Your task to perform on an android device: open app "PUBG MOBILE" (install if not already installed) Image 0: 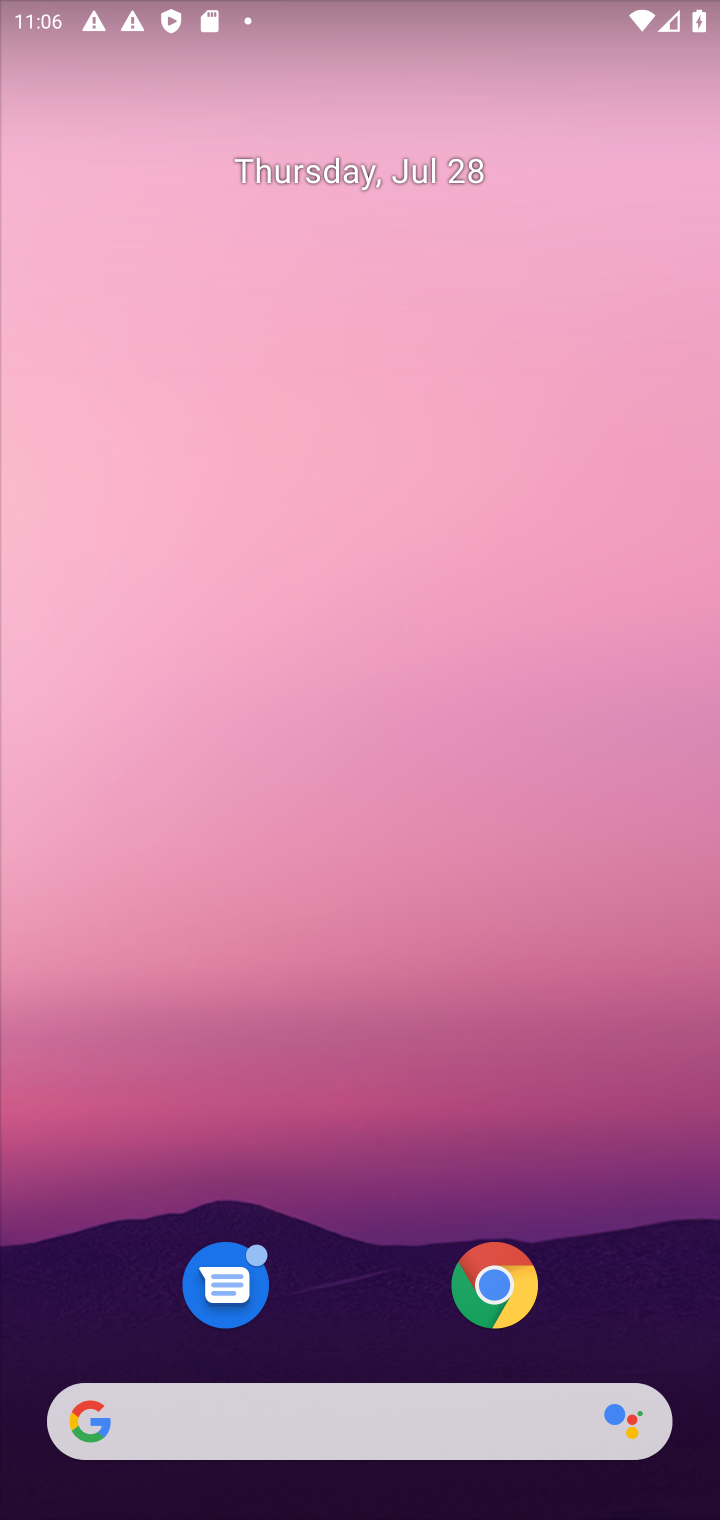
Step 0: click (479, 200)
Your task to perform on an android device: open app "PUBG MOBILE" (install if not already installed) Image 1: 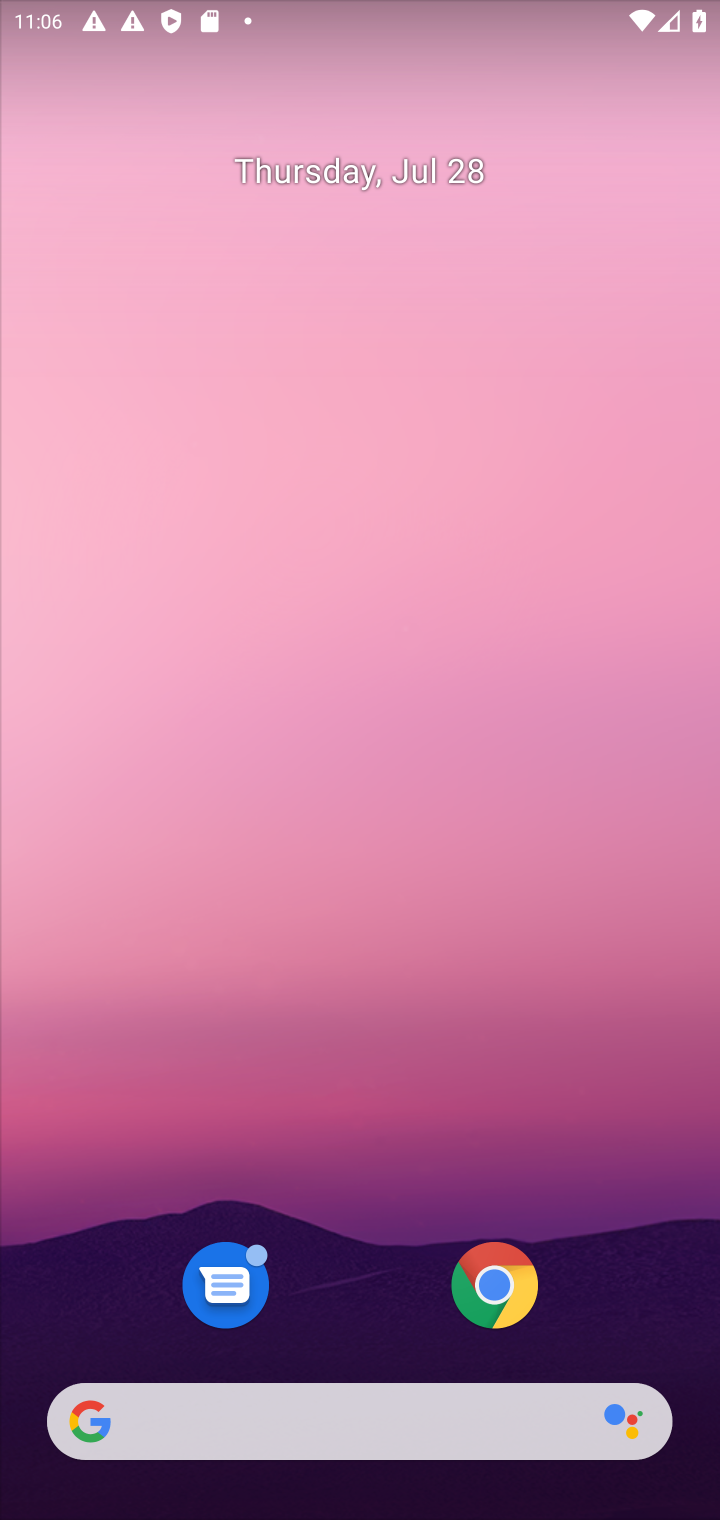
Step 1: drag from (332, 1335) to (362, 58)
Your task to perform on an android device: open app "PUBG MOBILE" (install if not already installed) Image 2: 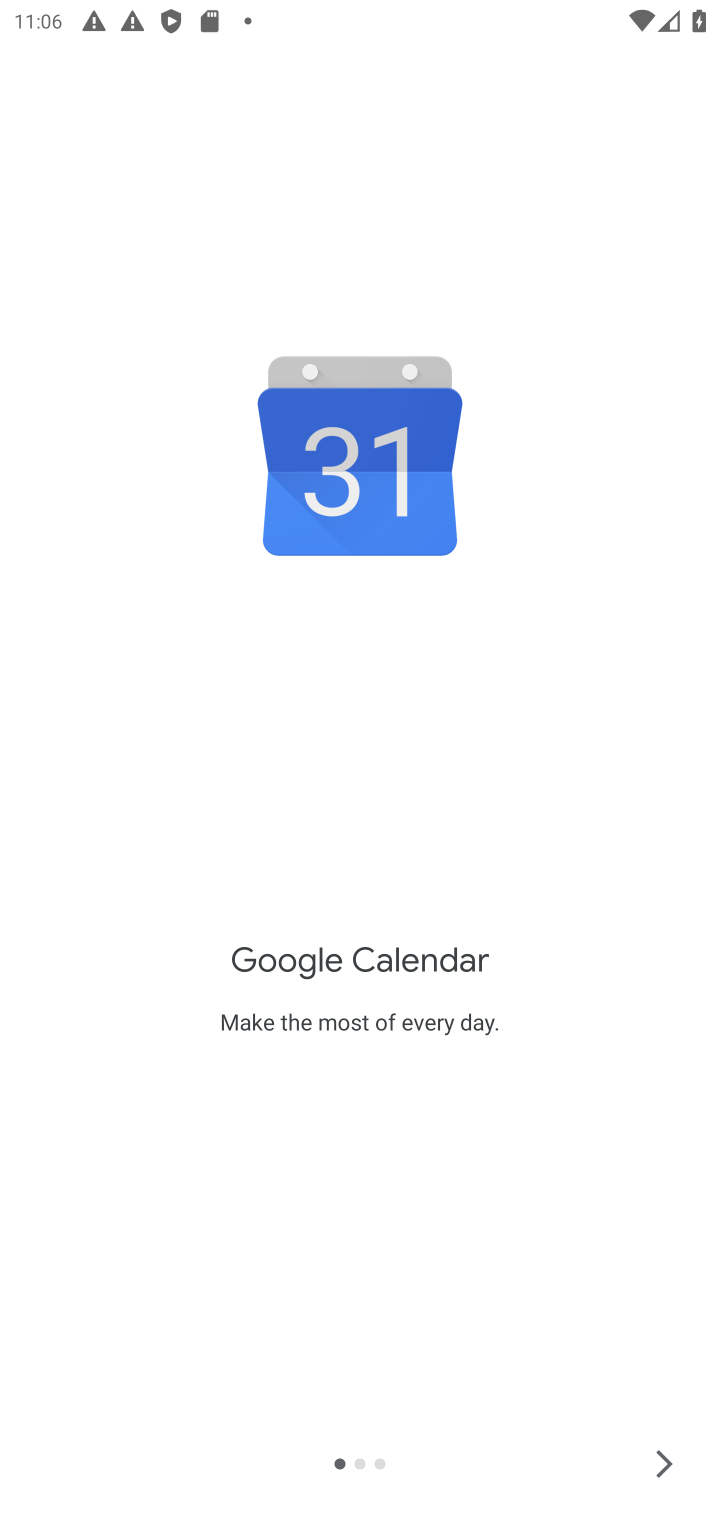
Step 2: press home button
Your task to perform on an android device: open app "PUBG MOBILE" (install if not already installed) Image 3: 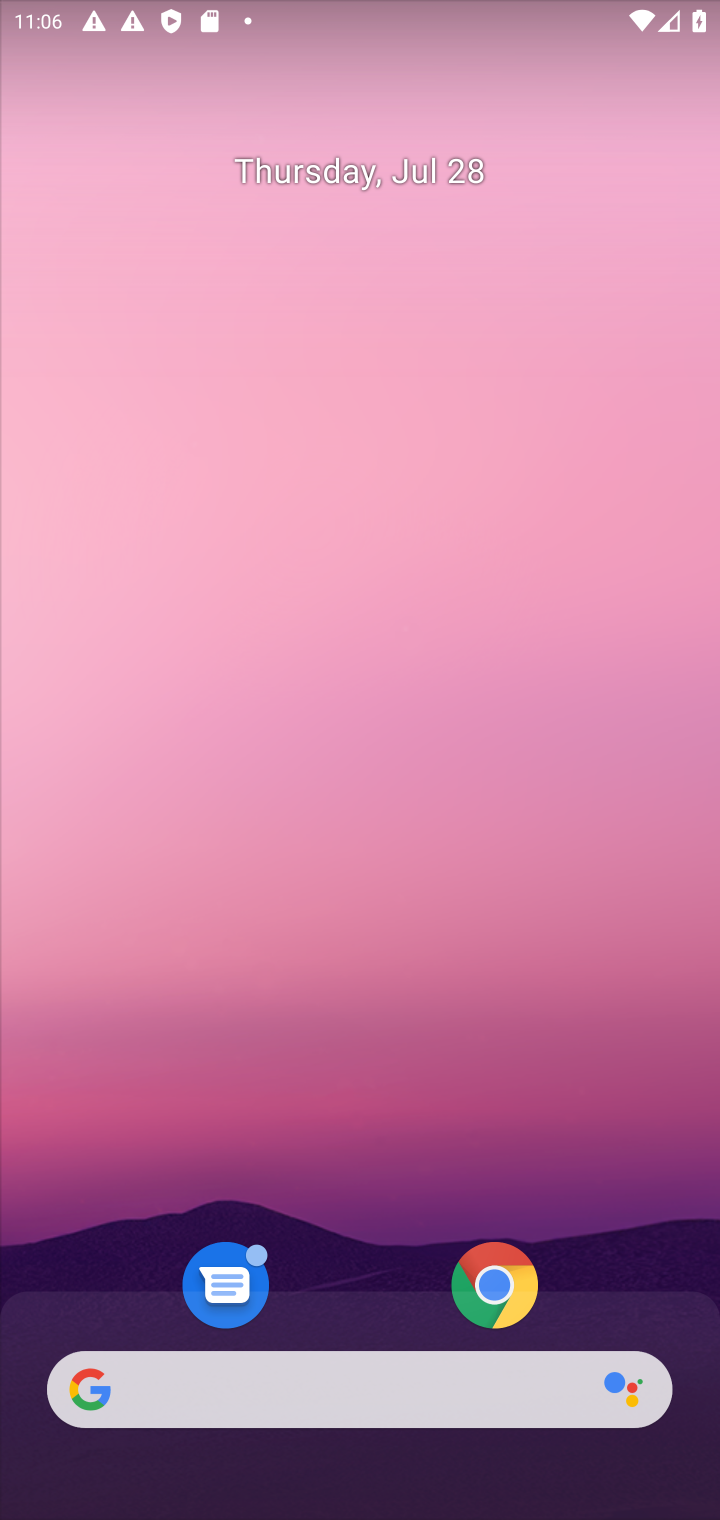
Step 3: drag from (254, 971) to (284, 64)
Your task to perform on an android device: open app "PUBG MOBILE" (install if not already installed) Image 4: 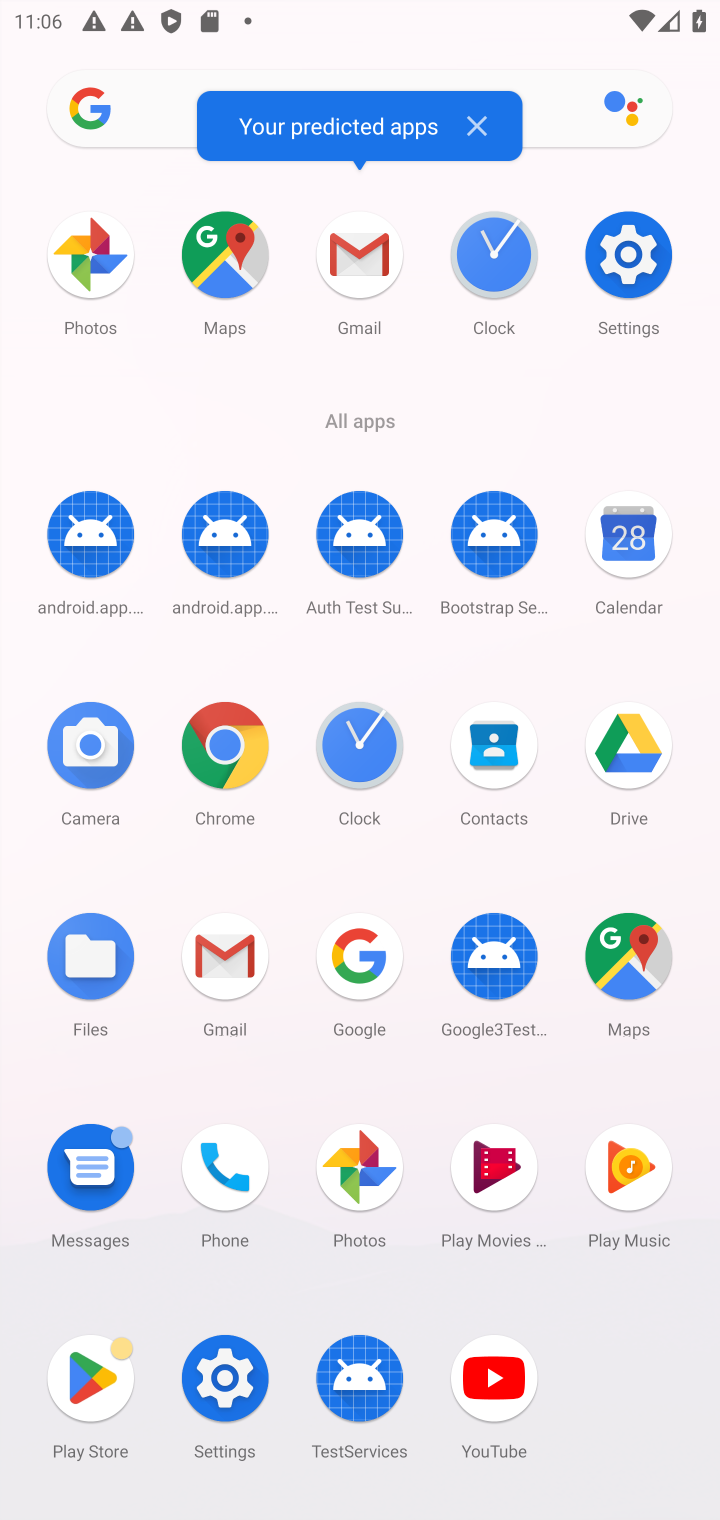
Step 4: click (83, 1373)
Your task to perform on an android device: open app "PUBG MOBILE" (install if not already installed) Image 5: 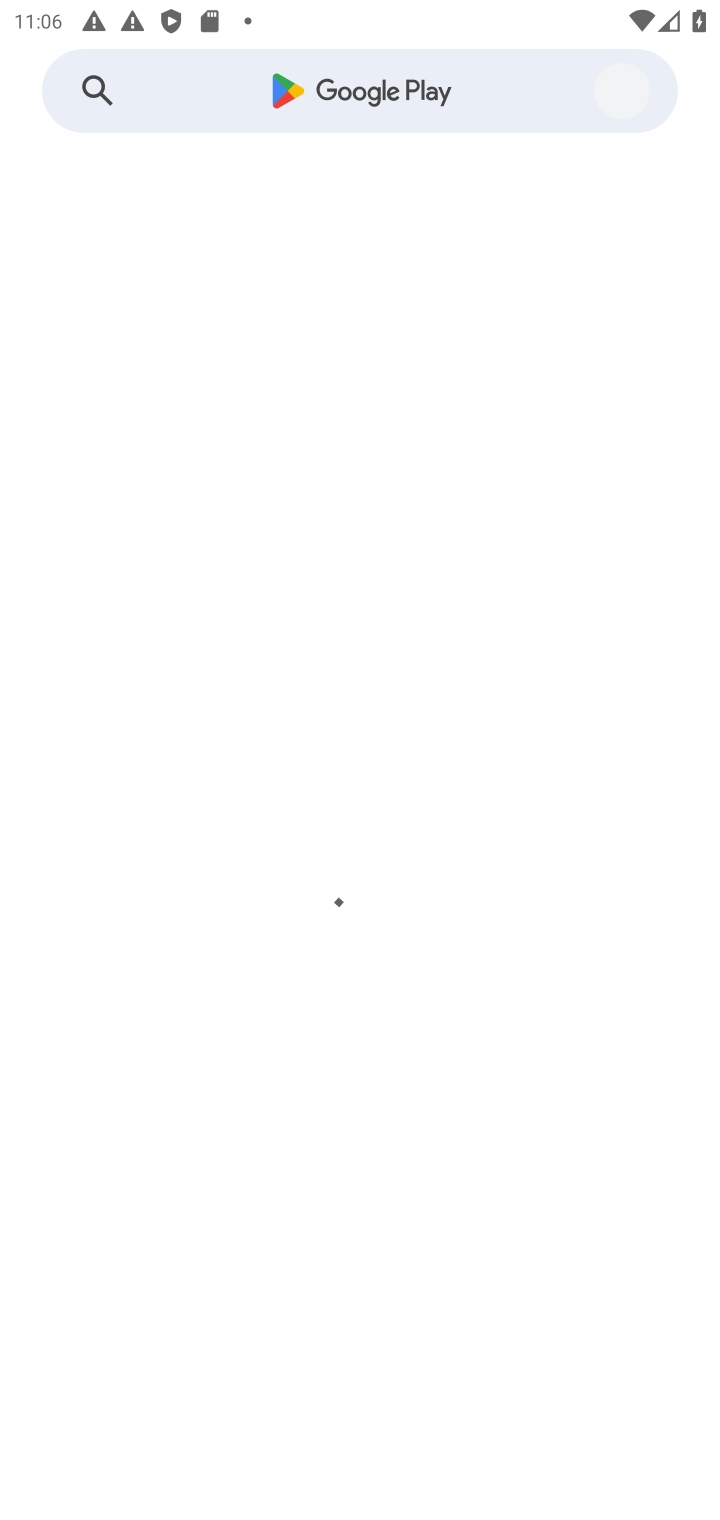
Step 5: click (376, 92)
Your task to perform on an android device: open app "PUBG MOBILE" (install if not already installed) Image 6: 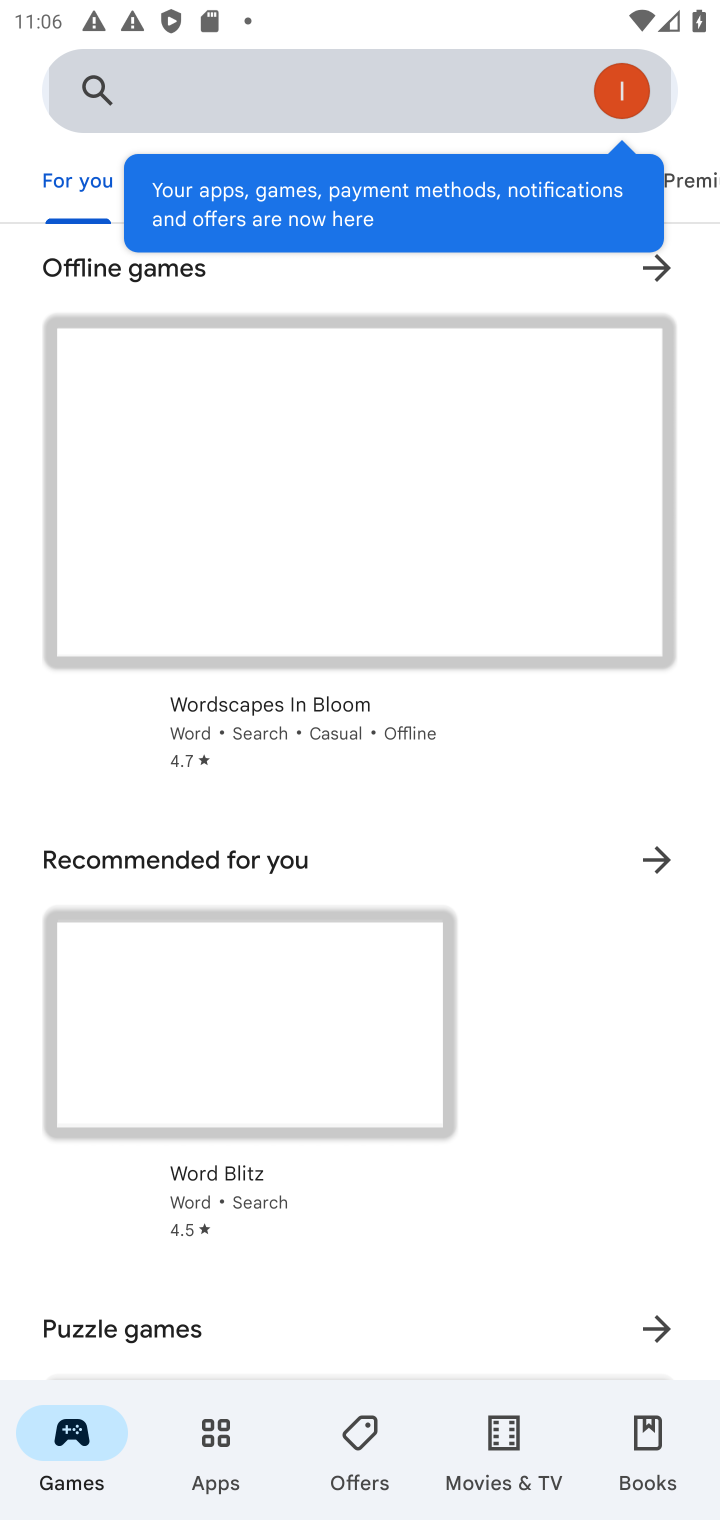
Step 6: click (299, 75)
Your task to perform on an android device: open app "PUBG MOBILE" (install if not already installed) Image 7: 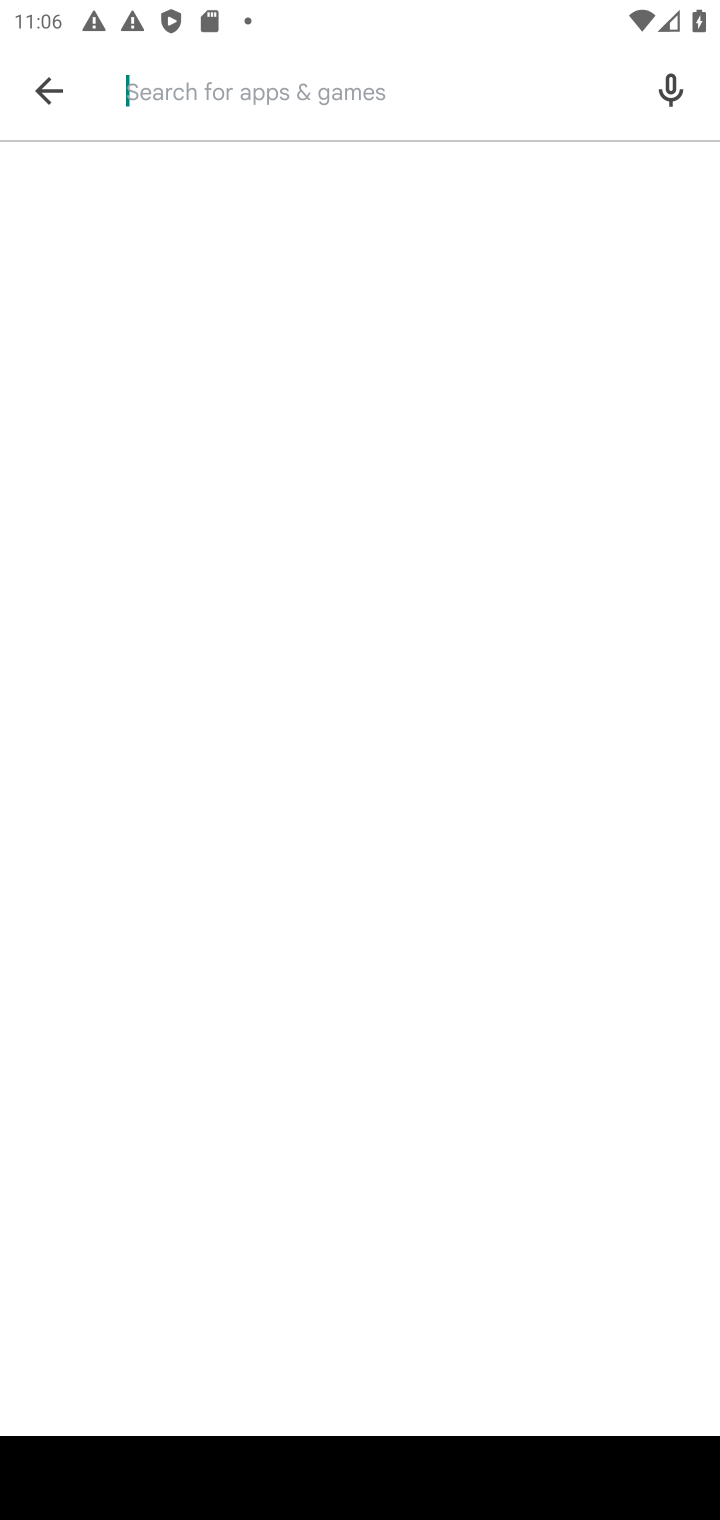
Step 7: type "PUBg"
Your task to perform on an android device: open app "PUBG MOBILE" (install if not already installed) Image 8: 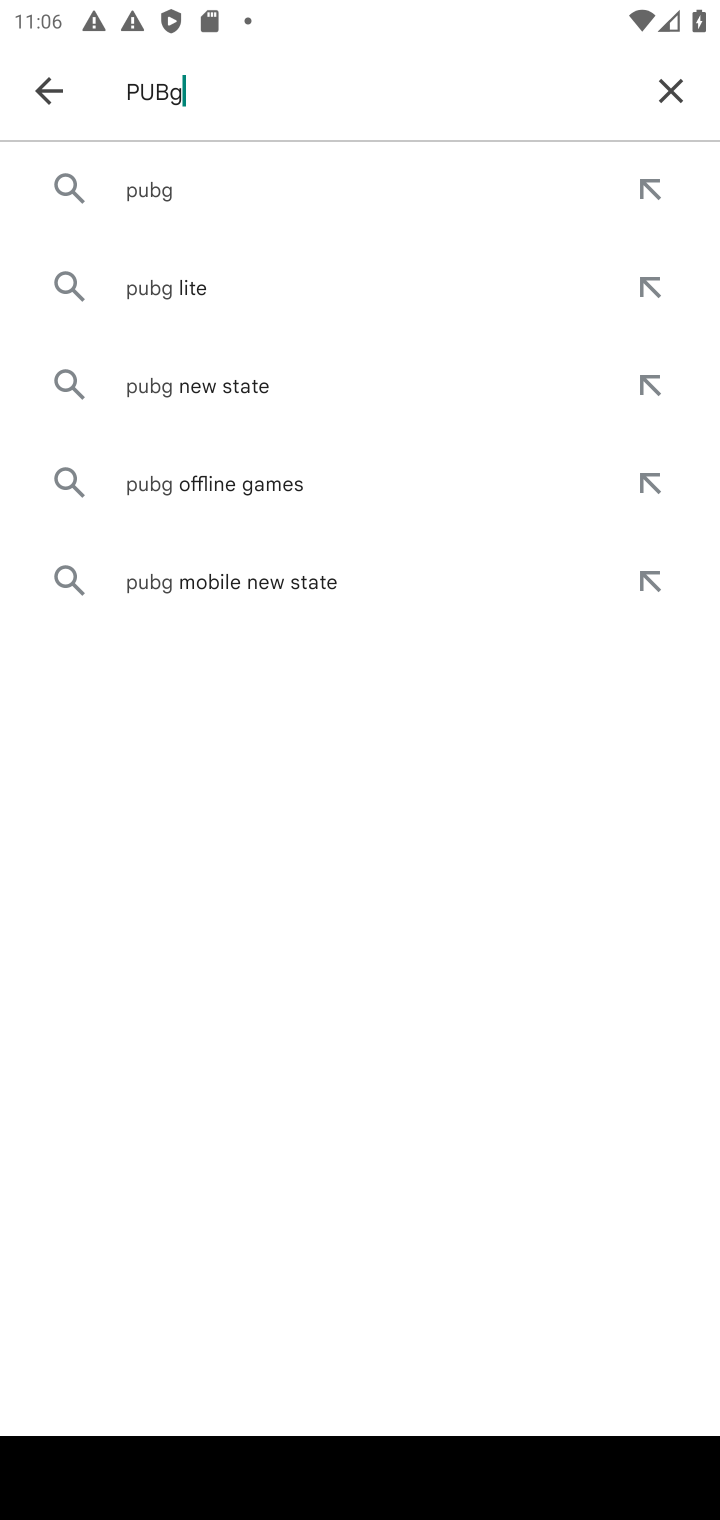
Step 8: click (156, 202)
Your task to perform on an android device: open app "PUBG MOBILE" (install if not already installed) Image 9: 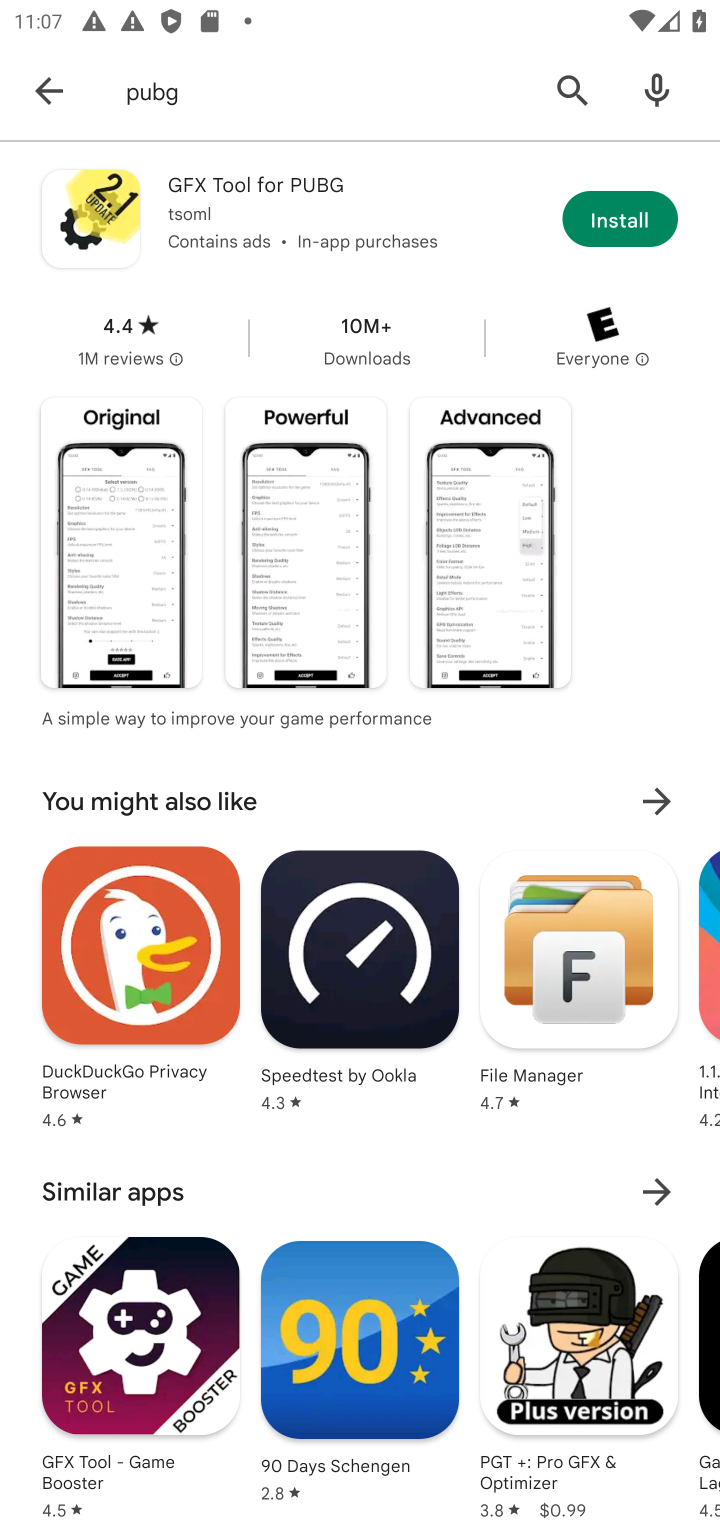
Step 9: task complete